Your task to perform on an android device: Open the calendar and show me this week's events? Image 0: 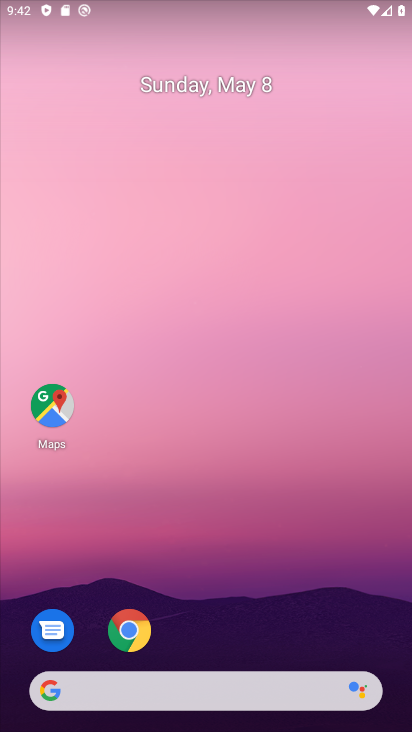
Step 0: drag from (206, 724) to (209, 253)
Your task to perform on an android device: Open the calendar and show me this week's events? Image 1: 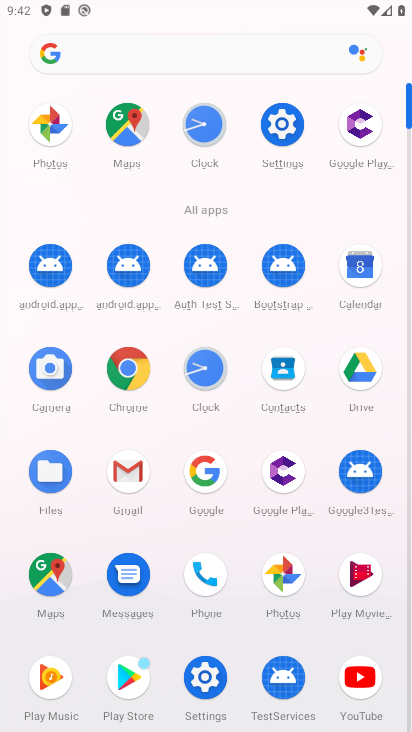
Step 1: click (360, 267)
Your task to perform on an android device: Open the calendar and show me this week's events? Image 2: 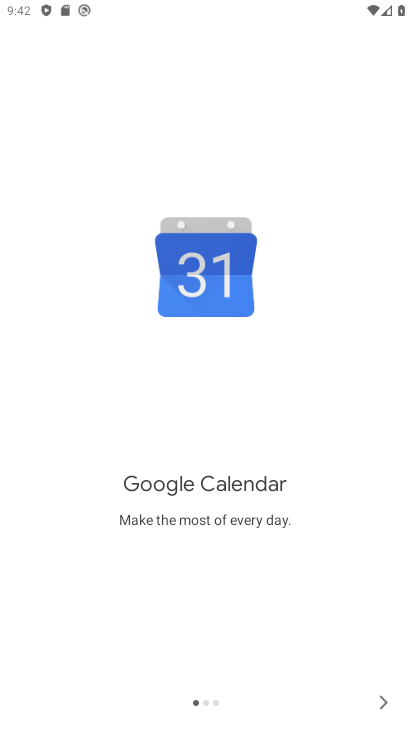
Step 2: click (381, 700)
Your task to perform on an android device: Open the calendar and show me this week's events? Image 3: 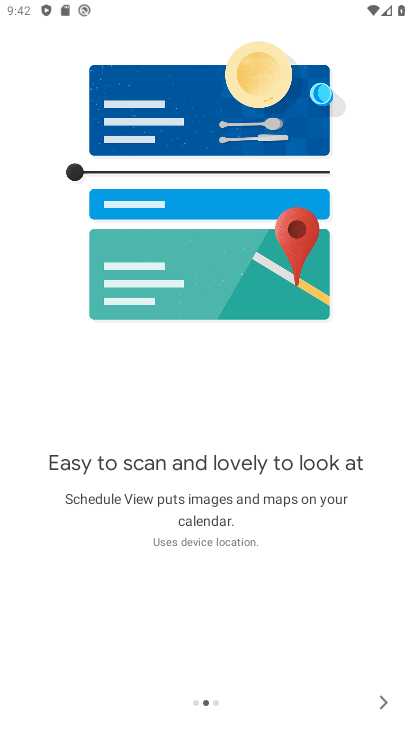
Step 3: click (383, 700)
Your task to perform on an android device: Open the calendar and show me this week's events? Image 4: 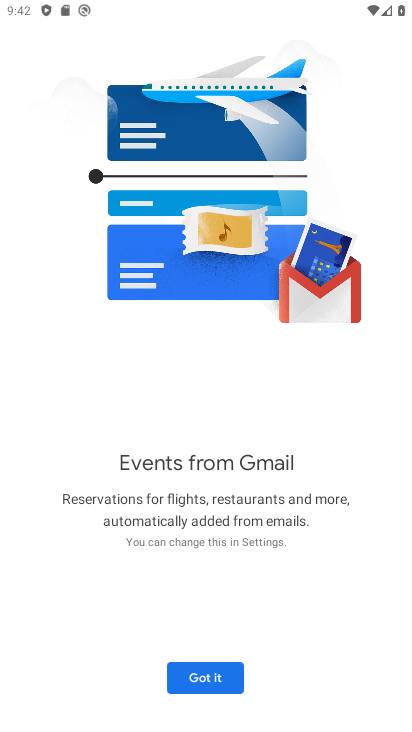
Step 4: click (203, 678)
Your task to perform on an android device: Open the calendar and show me this week's events? Image 5: 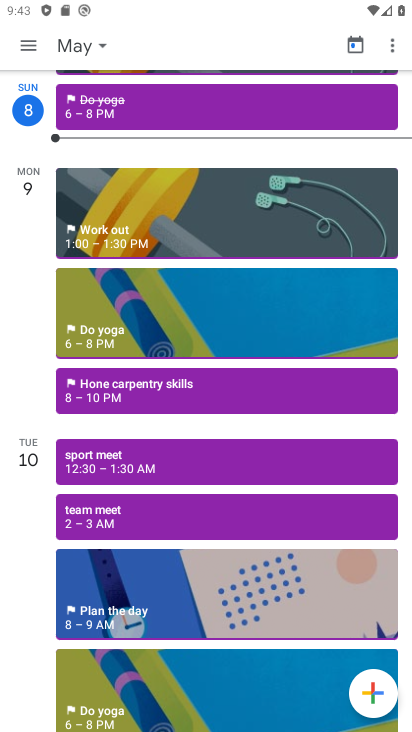
Step 5: click (22, 40)
Your task to perform on an android device: Open the calendar and show me this week's events? Image 6: 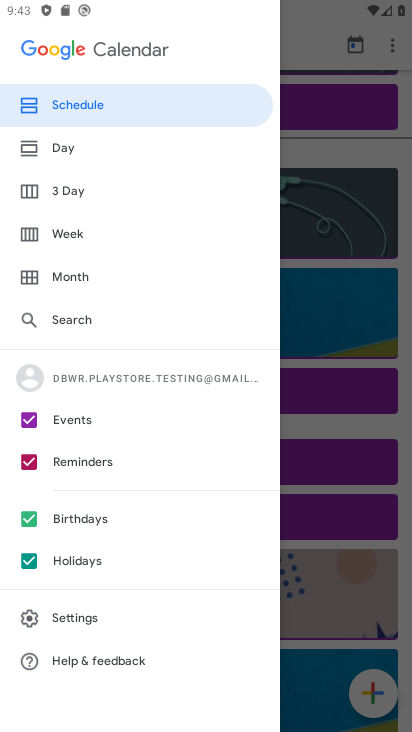
Step 6: click (56, 556)
Your task to perform on an android device: Open the calendar and show me this week's events? Image 7: 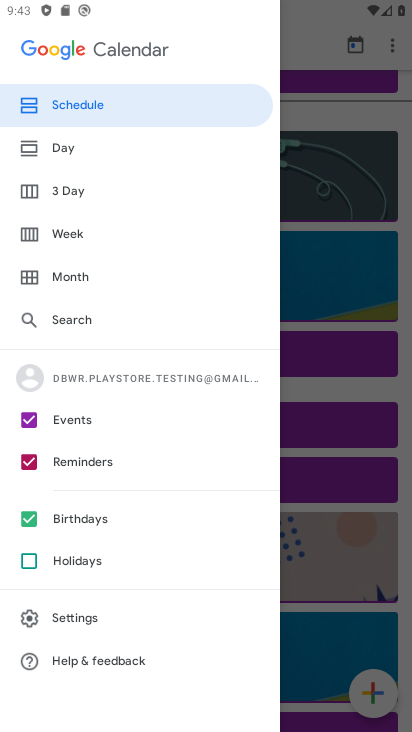
Step 7: click (67, 513)
Your task to perform on an android device: Open the calendar and show me this week's events? Image 8: 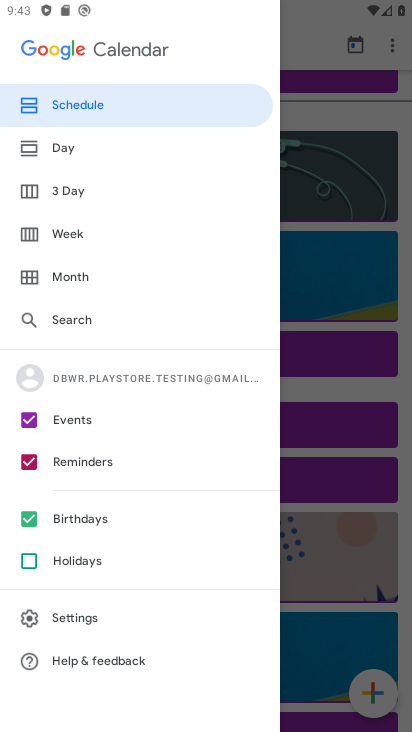
Step 8: click (25, 520)
Your task to perform on an android device: Open the calendar and show me this week's events? Image 9: 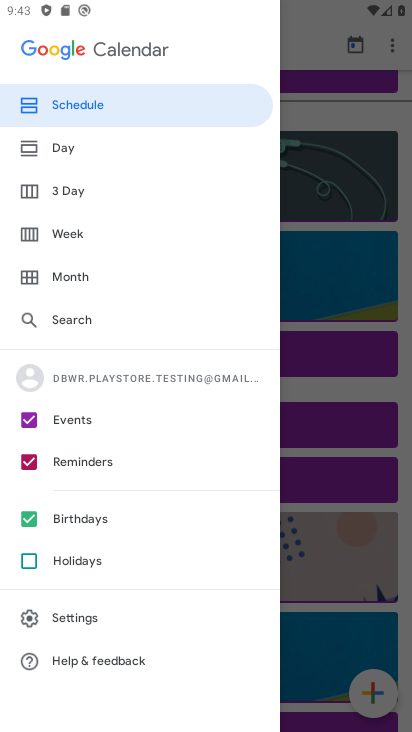
Step 9: click (23, 460)
Your task to perform on an android device: Open the calendar and show me this week's events? Image 10: 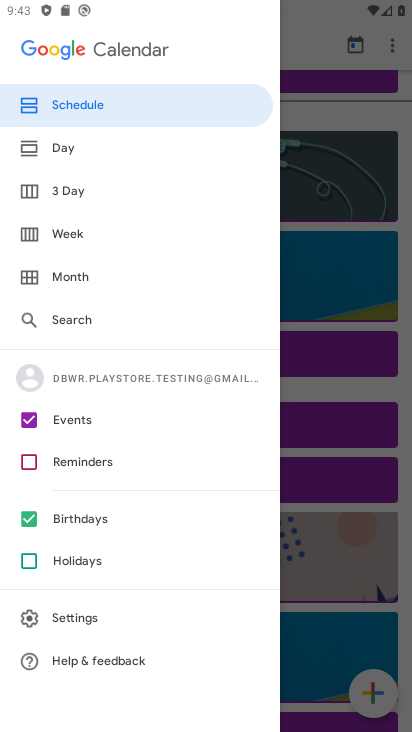
Step 10: click (27, 511)
Your task to perform on an android device: Open the calendar and show me this week's events? Image 11: 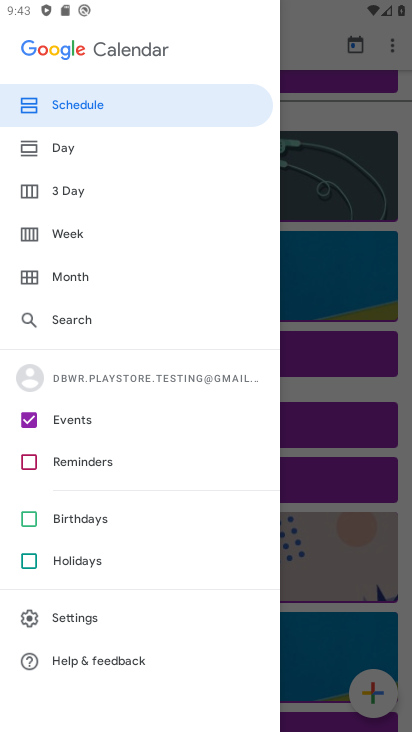
Step 11: click (64, 234)
Your task to perform on an android device: Open the calendar and show me this week's events? Image 12: 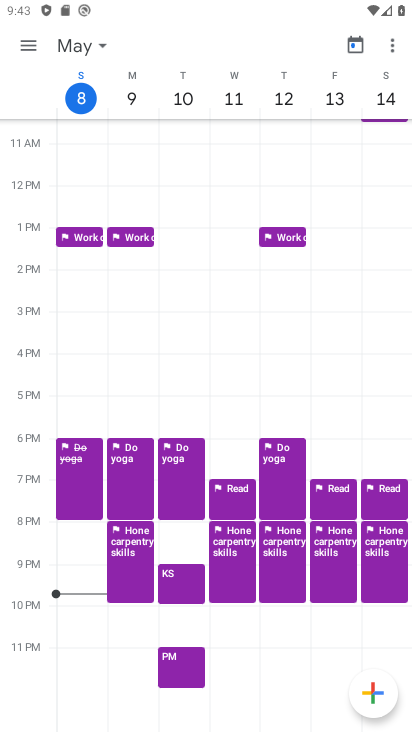
Step 12: task complete